Your task to perform on an android device: Open my contact list Image 0: 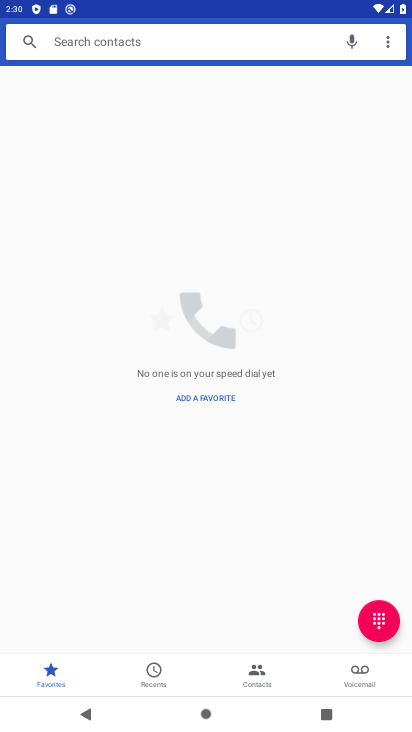
Step 0: type "wea"
Your task to perform on an android device: Open my contact list Image 1: 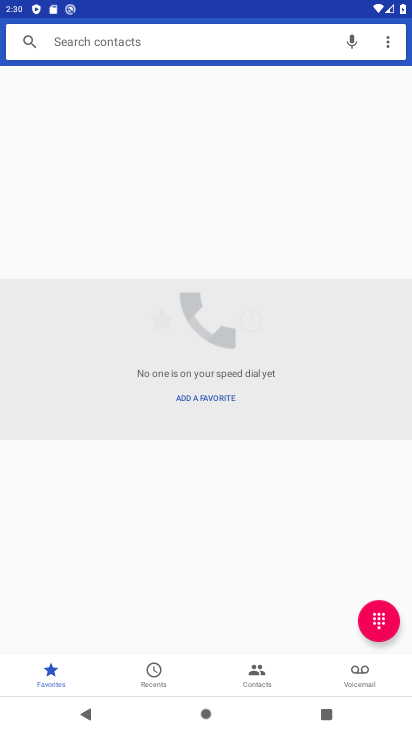
Step 1: press home button
Your task to perform on an android device: Open my contact list Image 2: 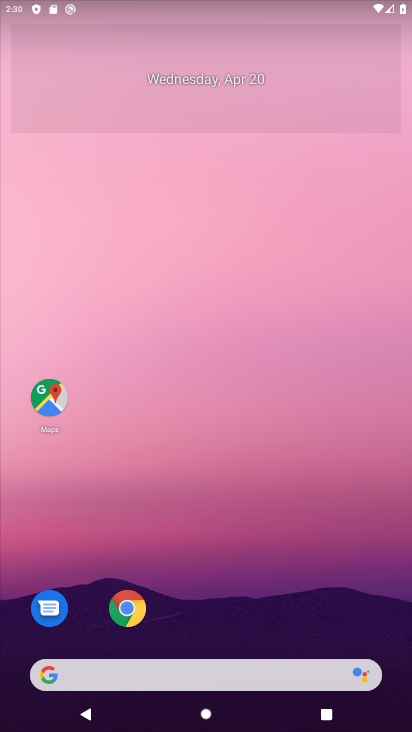
Step 2: drag from (302, 585) to (309, 182)
Your task to perform on an android device: Open my contact list Image 3: 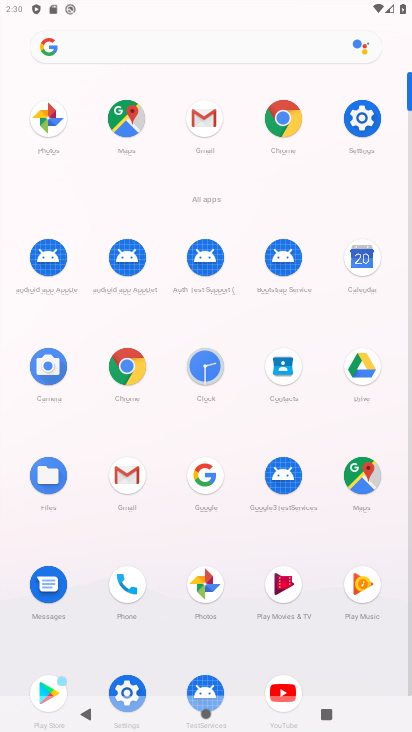
Step 3: click (281, 368)
Your task to perform on an android device: Open my contact list Image 4: 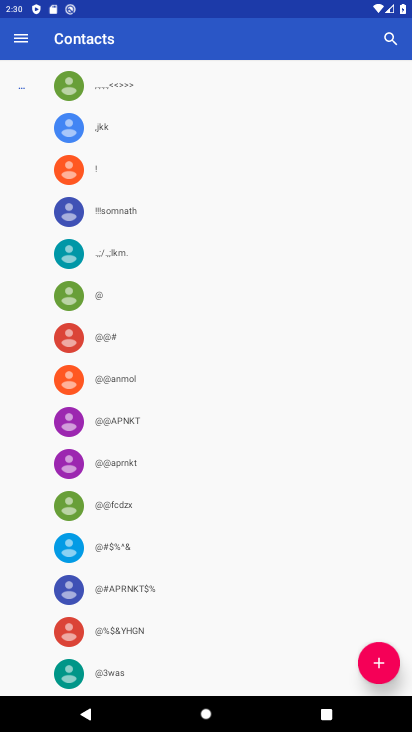
Step 4: task complete